Your task to perform on an android device: choose inbox layout in the gmail app Image 0: 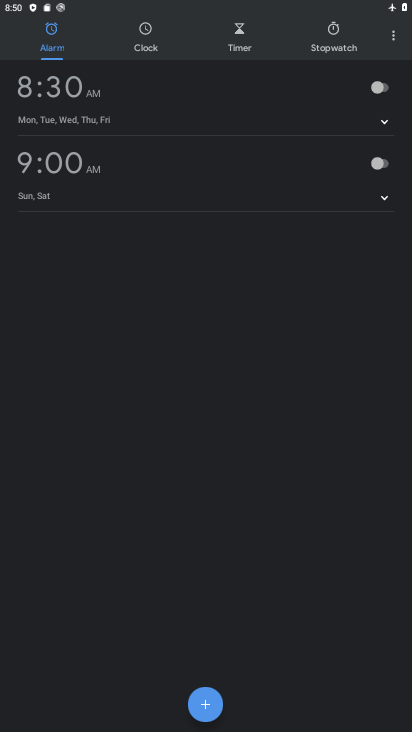
Step 0: press home button
Your task to perform on an android device: choose inbox layout in the gmail app Image 1: 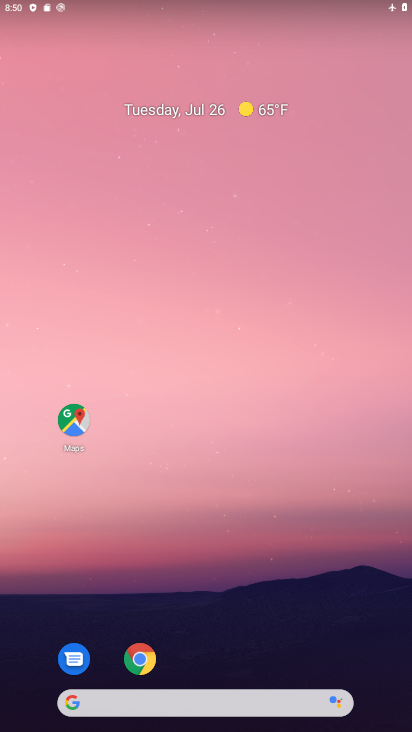
Step 1: click (214, 645)
Your task to perform on an android device: choose inbox layout in the gmail app Image 2: 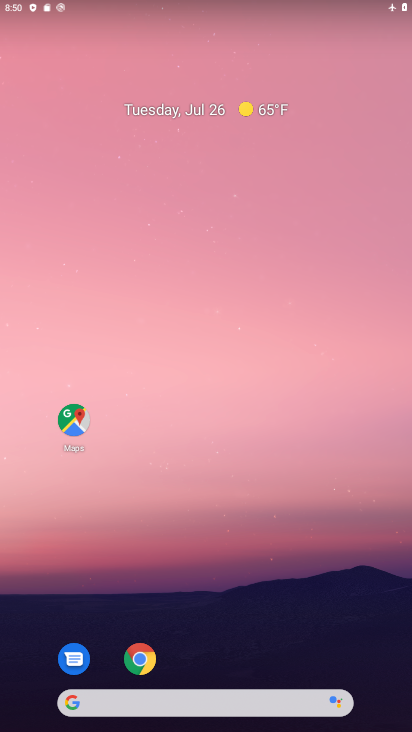
Step 2: drag from (209, 236) to (209, 1)
Your task to perform on an android device: choose inbox layout in the gmail app Image 3: 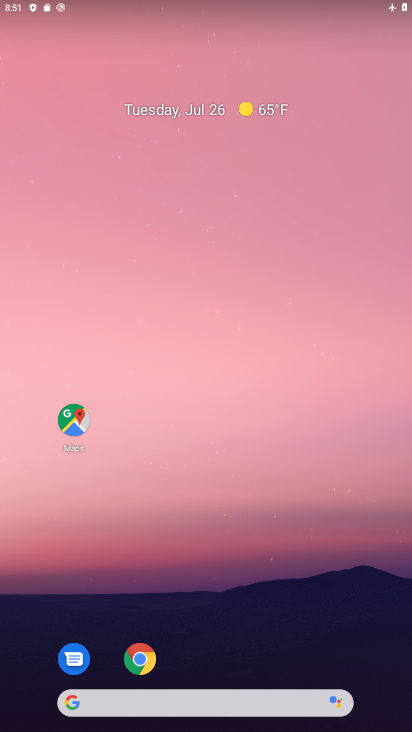
Step 3: drag from (194, 617) to (183, 221)
Your task to perform on an android device: choose inbox layout in the gmail app Image 4: 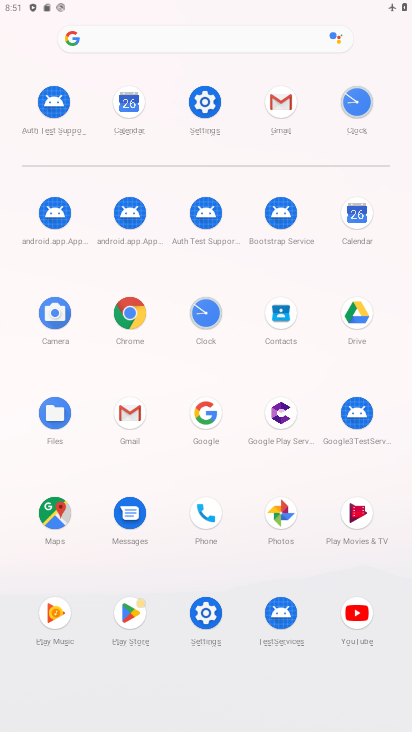
Step 4: click (276, 117)
Your task to perform on an android device: choose inbox layout in the gmail app Image 5: 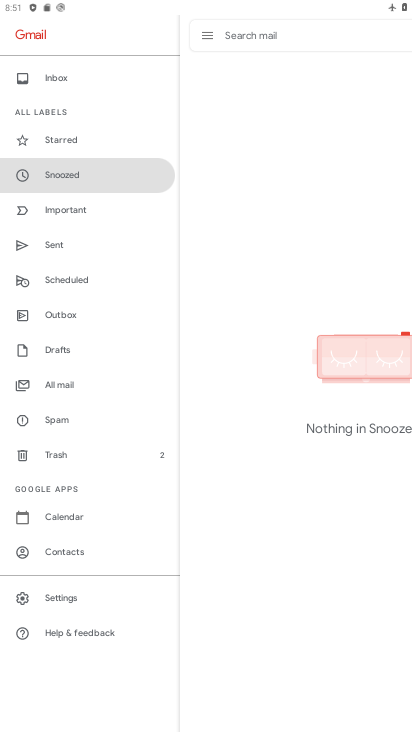
Step 5: click (46, 593)
Your task to perform on an android device: choose inbox layout in the gmail app Image 6: 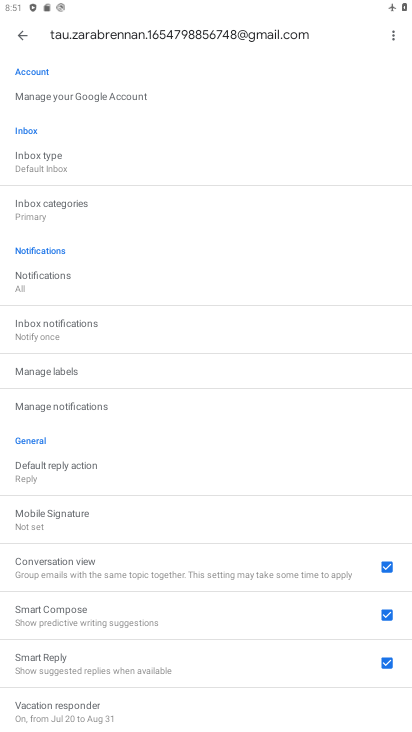
Step 6: click (56, 161)
Your task to perform on an android device: choose inbox layout in the gmail app Image 7: 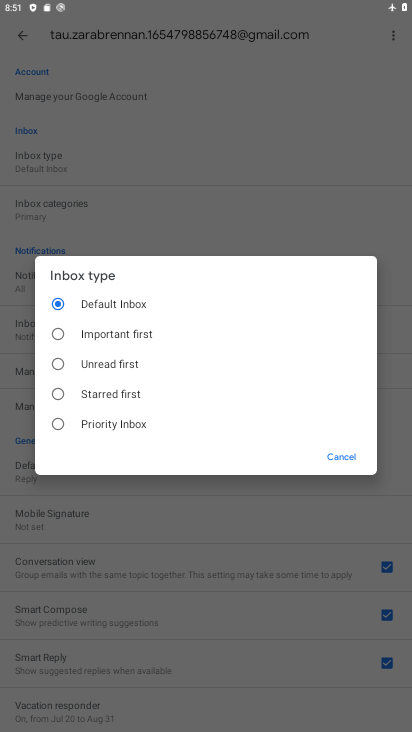
Step 7: click (53, 421)
Your task to perform on an android device: choose inbox layout in the gmail app Image 8: 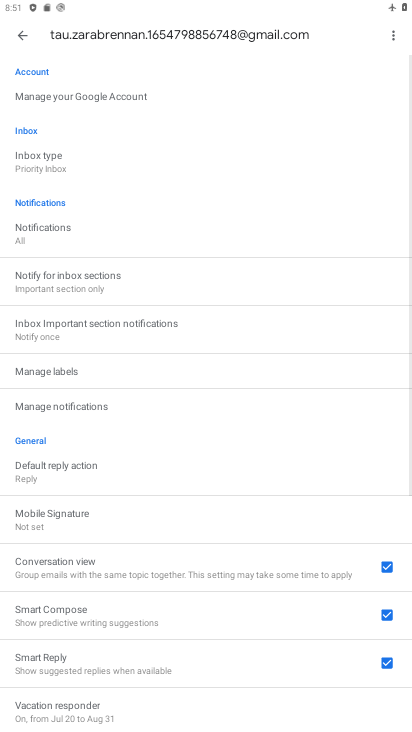
Step 8: task complete